Your task to perform on an android device: Show me the alarms in the clock app Image 0: 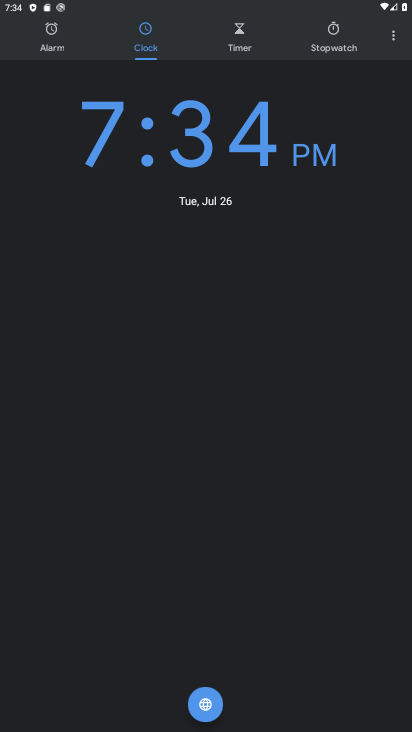
Step 0: drag from (223, 630) to (321, 159)
Your task to perform on an android device: Show me the alarms in the clock app Image 1: 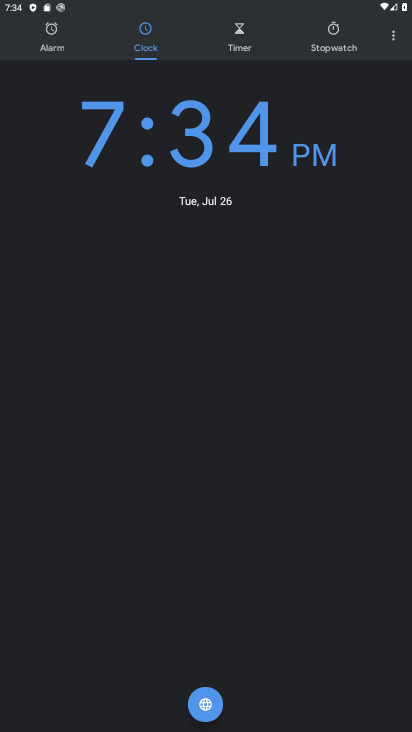
Step 1: press home button
Your task to perform on an android device: Show me the alarms in the clock app Image 2: 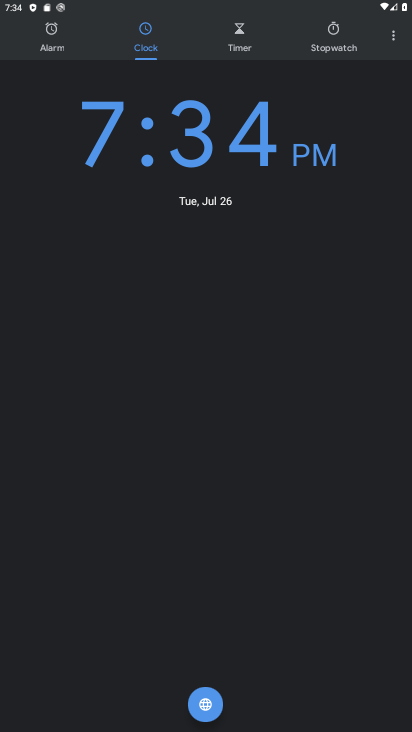
Step 2: press home button
Your task to perform on an android device: Show me the alarms in the clock app Image 3: 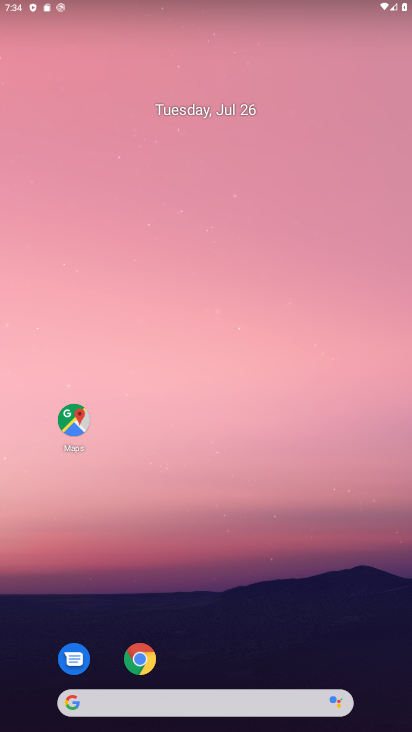
Step 3: drag from (191, 678) to (164, 77)
Your task to perform on an android device: Show me the alarms in the clock app Image 4: 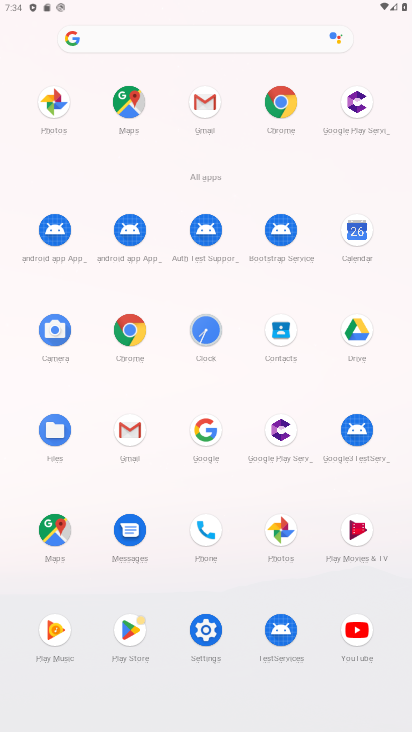
Step 4: click (192, 332)
Your task to perform on an android device: Show me the alarms in the clock app Image 5: 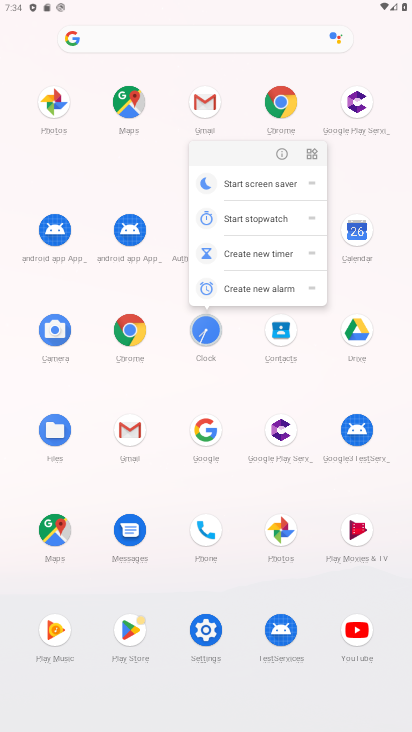
Step 5: click (279, 151)
Your task to perform on an android device: Show me the alarms in the clock app Image 6: 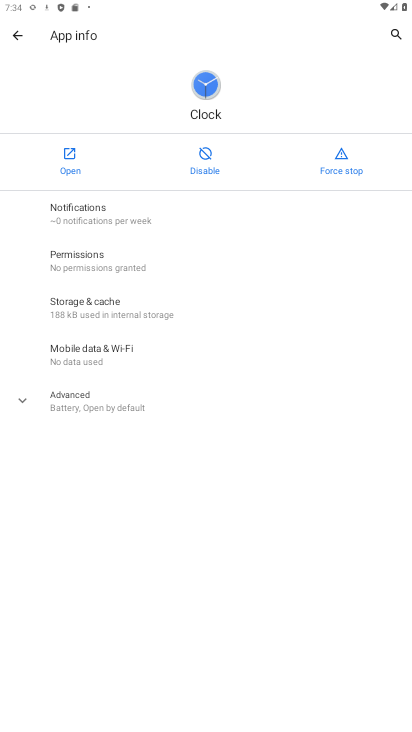
Step 6: click (67, 163)
Your task to perform on an android device: Show me the alarms in the clock app Image 7: 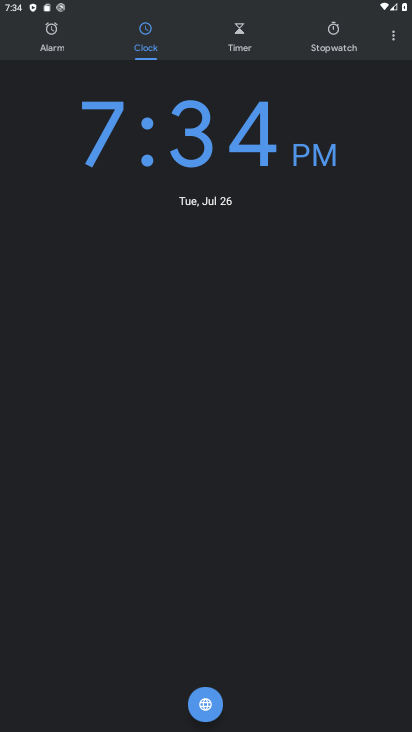
Step 7: click (41, 45)
Your task to perform on an android device: Show me the alarms in the clock app Image 8: 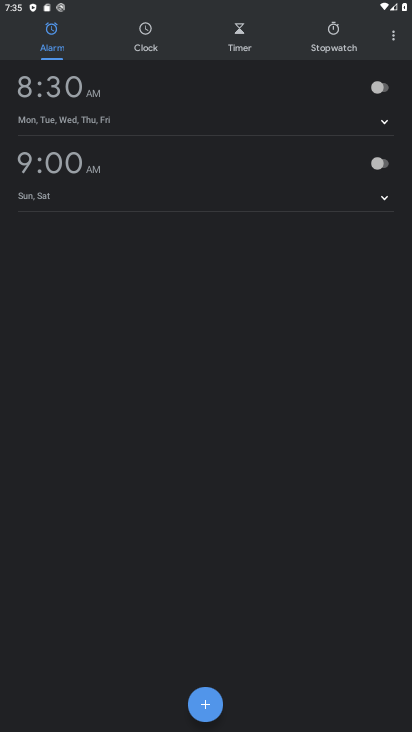
Step 8: task complete